Your task to perform on an android device: change keyboard looks Image 0: 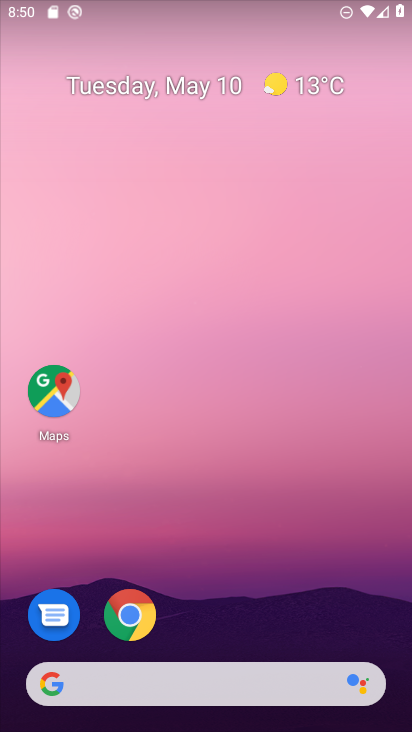
Step 0: drag from (245, 599) to (132, 9)
Your task to perform on an android device: change keyboard looks Image 1: 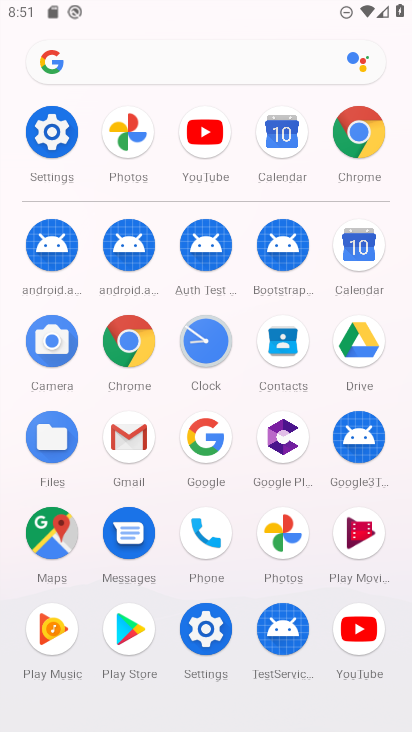
Step 1: click (48, 121)
Your task to perform on an android device: change keyboard looks Image 2: 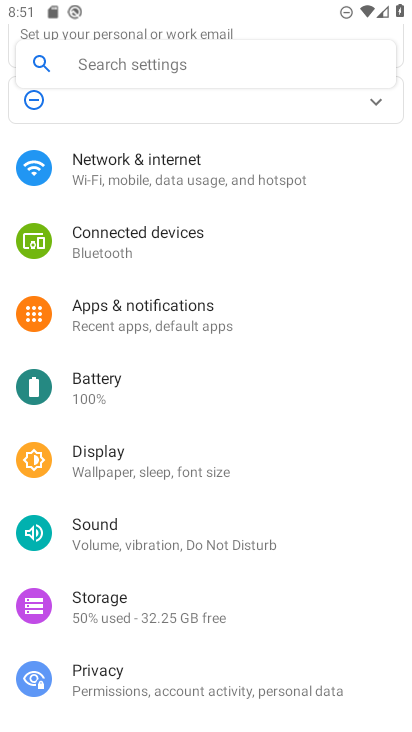
Step 2: drag from (176, 573) to (105, 151)
Your task to perform on an android device: change keyboard looks Image 3: 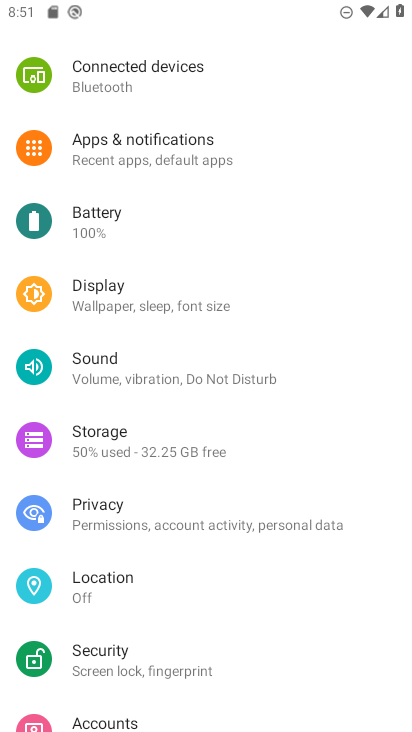
Step 3: drag from (168, 605) to (121, 302)
Your task to perform on an android device: change keyboard looks Image 4: 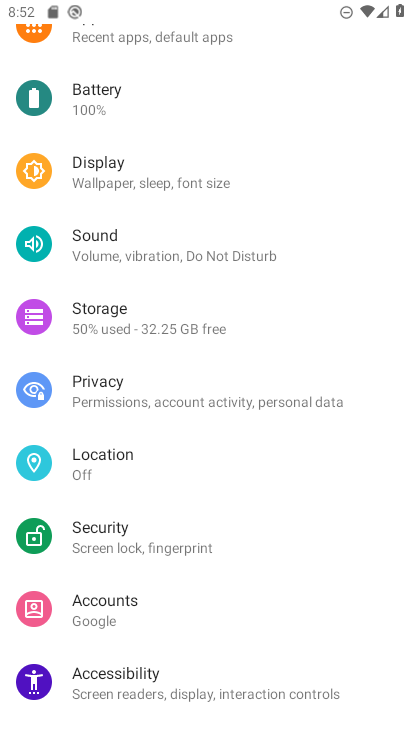
Step 4: drag from (185, 625) to (172, 191)
Your task to perform on an android device: change keyboard looks Image 5: 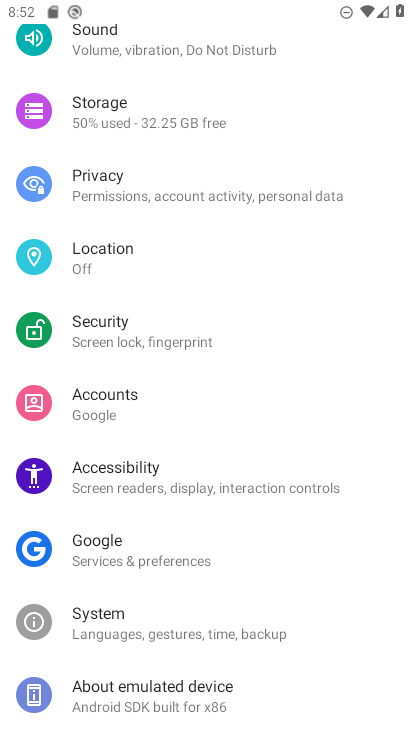
Step 5: click (106, 617)
Your task to perform on an android device: change keyboard looks Image 6: 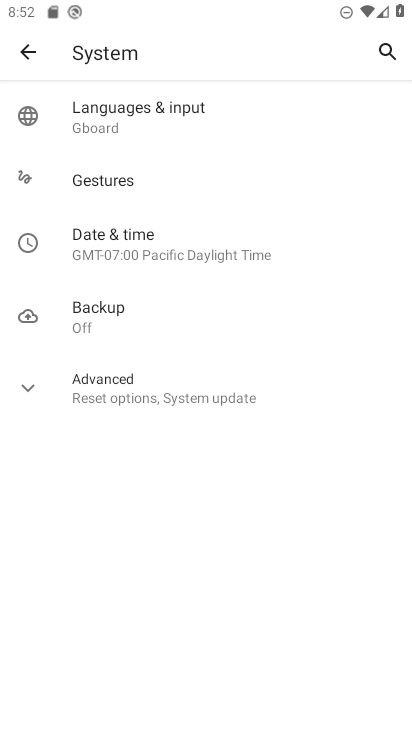
Step 6: click (110, 101)
Your task to perform on an android device: change keyboard looks Image 7: 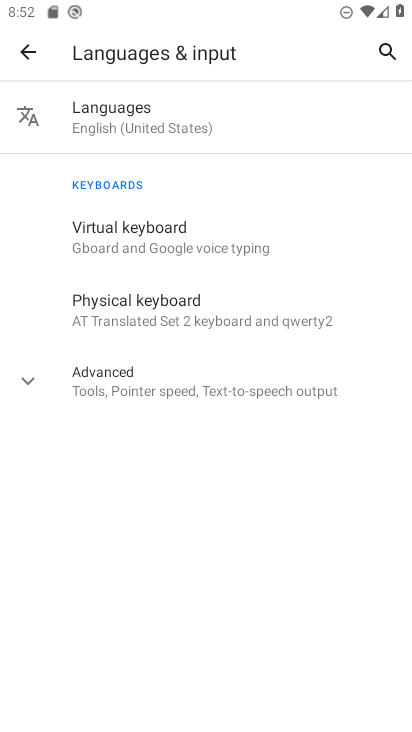
Step 7: click (115, 231)
Your task to perform on an android device: change keyboard looks Image 8: 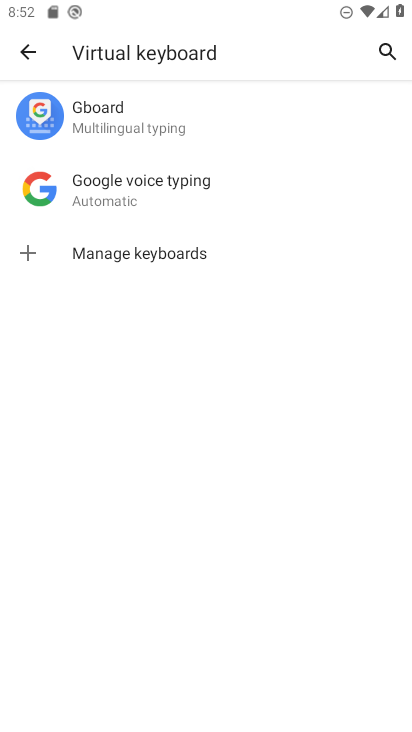
Step 8: click (98, 103)
Your task to perform on an android device: change keyboard looks Image 9: 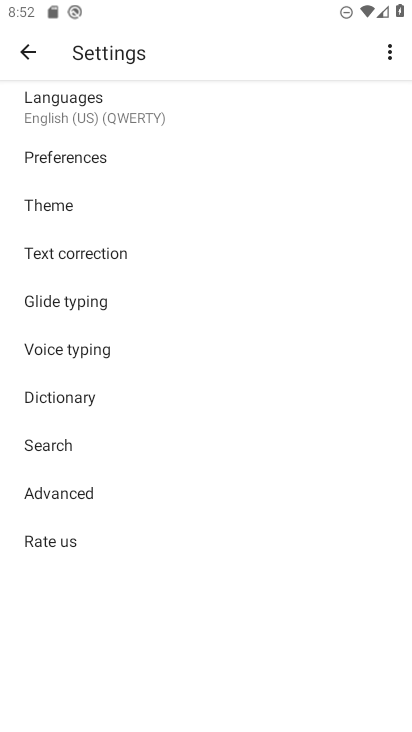
Step 9: click (51, 200)
Your task to perform on an android device: change keyboard looks Image 10: 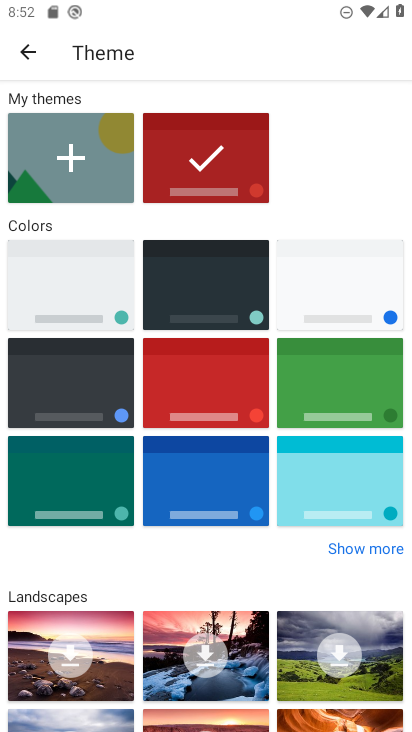
Step 10: click (52, 483)
Your task to perform on an android device: change keyboard looks Image 11: 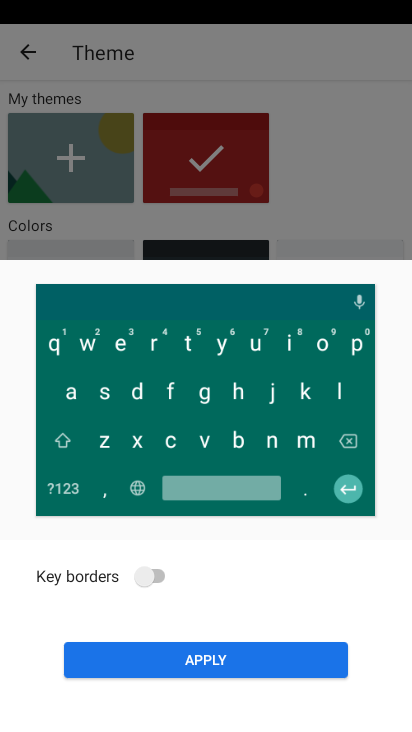
Step 11: click (218, 667)
Your task to perform on an android device: change keyboard looks Image 12: 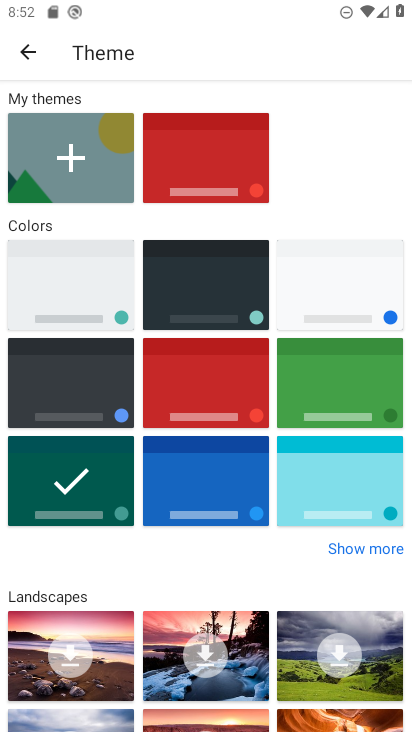
Step 12: task complete